Your task to perform on an android device: Look up the top rated 18v miter saw on Home Depot. Image 0: 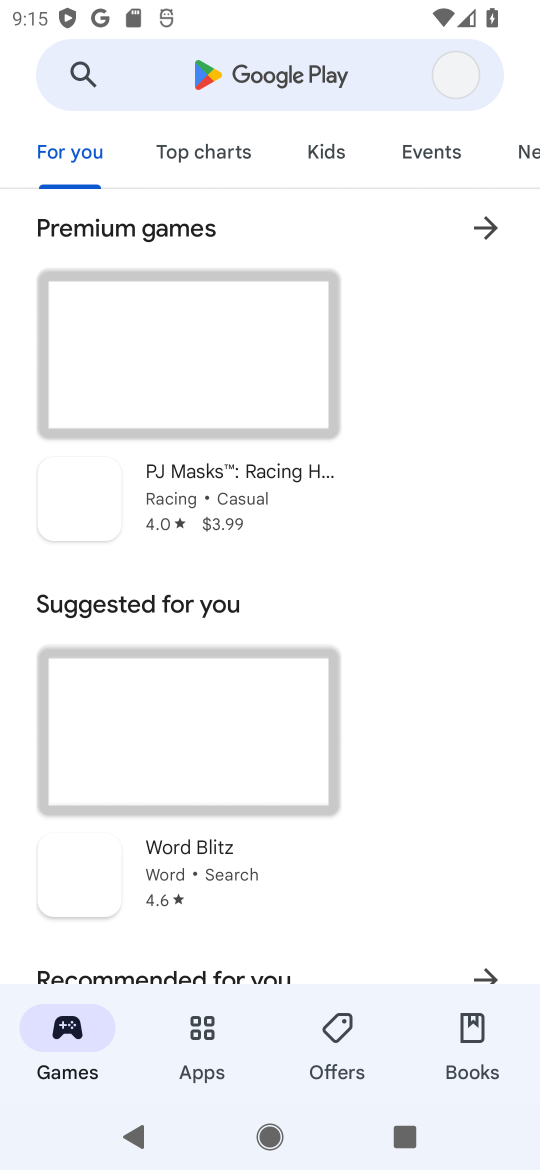
Step 0: press home button
Your task to perform on an android device: Look up the top rated 18v miter saw on Home Depot. Image 1: 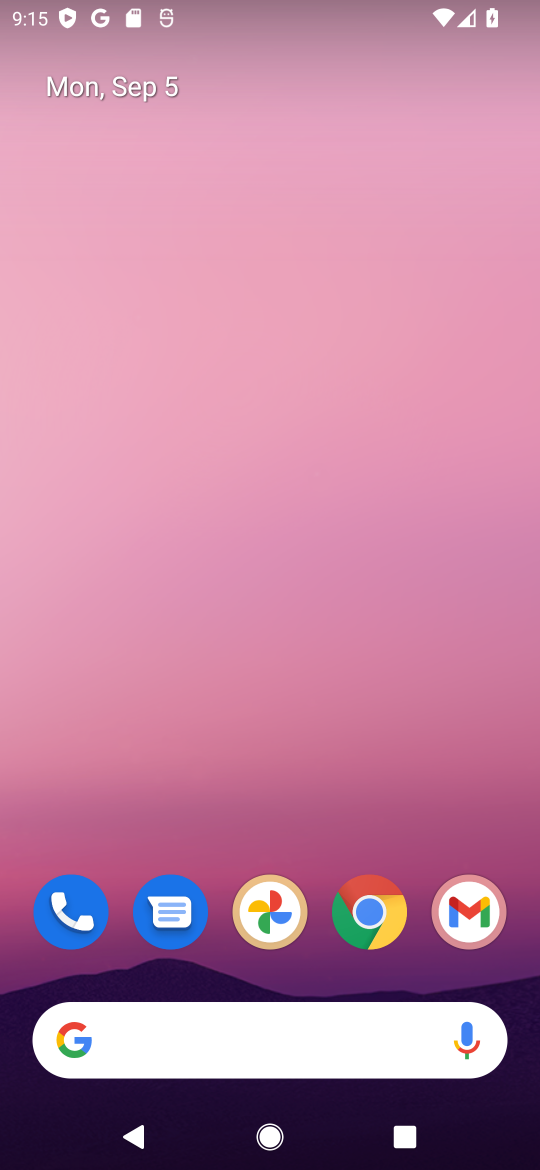
Step 1: click (388, 919)
Your task to perform on an android device: Look up the top rated 18v miter saw on Home Depot. Image 2: 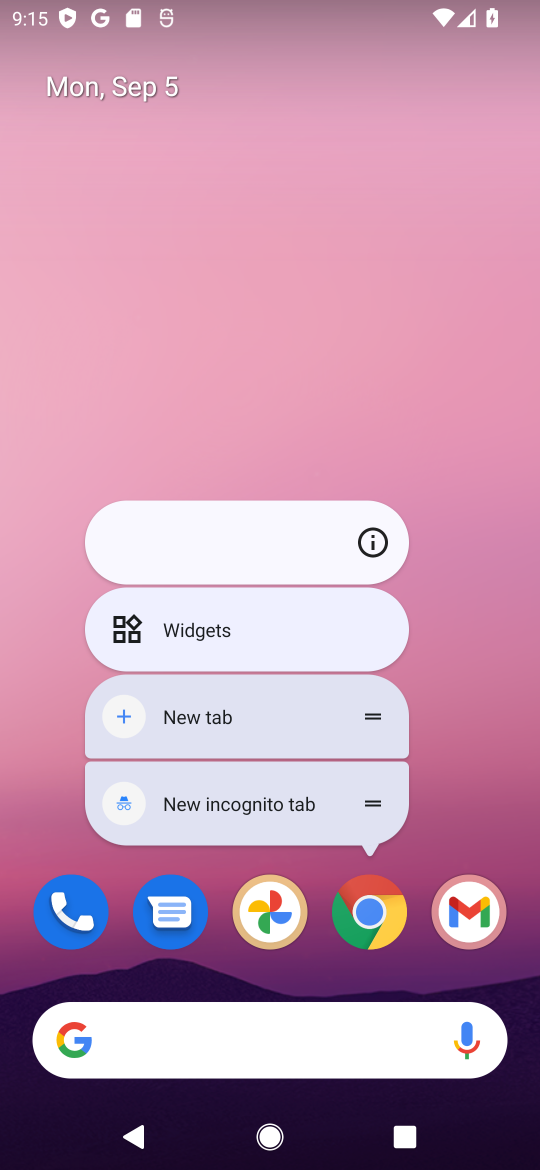
Step 2: click (369, 925)
Your task to perform on an android device: Look up the top rated 18v miter saw on Home Depot. Image 3: 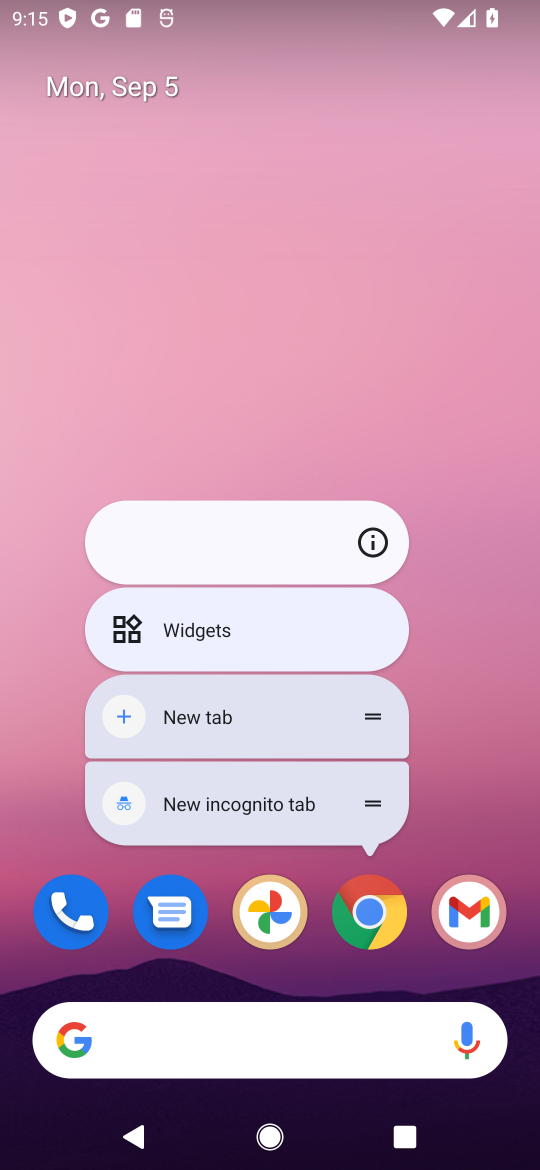
Step 3: click (369, 925)
Your task to perform on an android device: Look up the top rated 18v miter saw on Home Depot. Image 4: 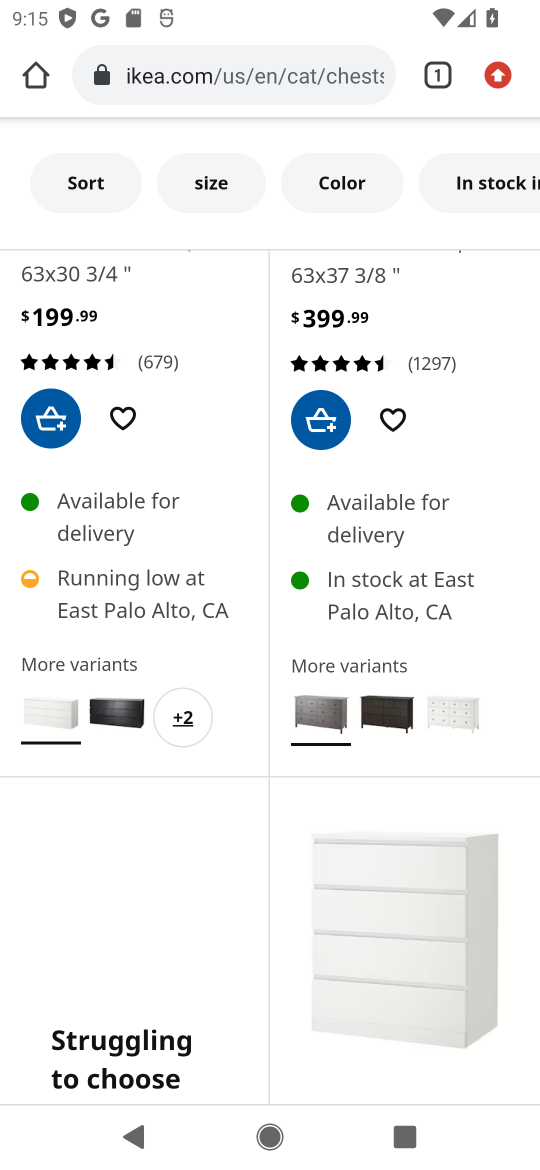
Step 4: click (234, 59)
Your task to perform on an android device: Look up the top rated 18v miter saw on Home Depot. Image 5: 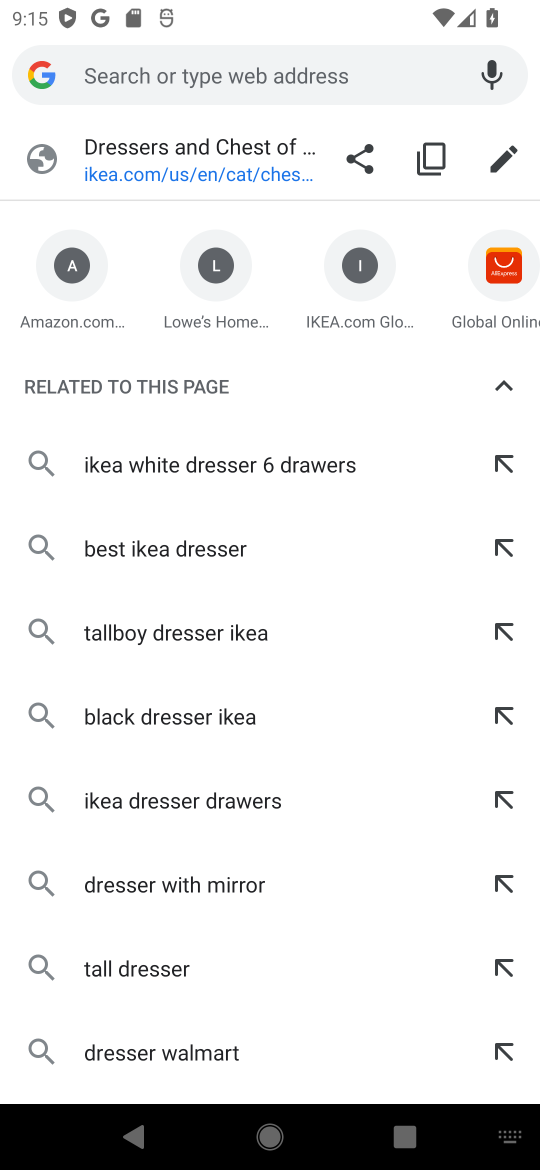
Step 5: type "home depot"
Your task to perform on an android device: Look up the top rated 18v miter saw on Home Depot. Image 6: 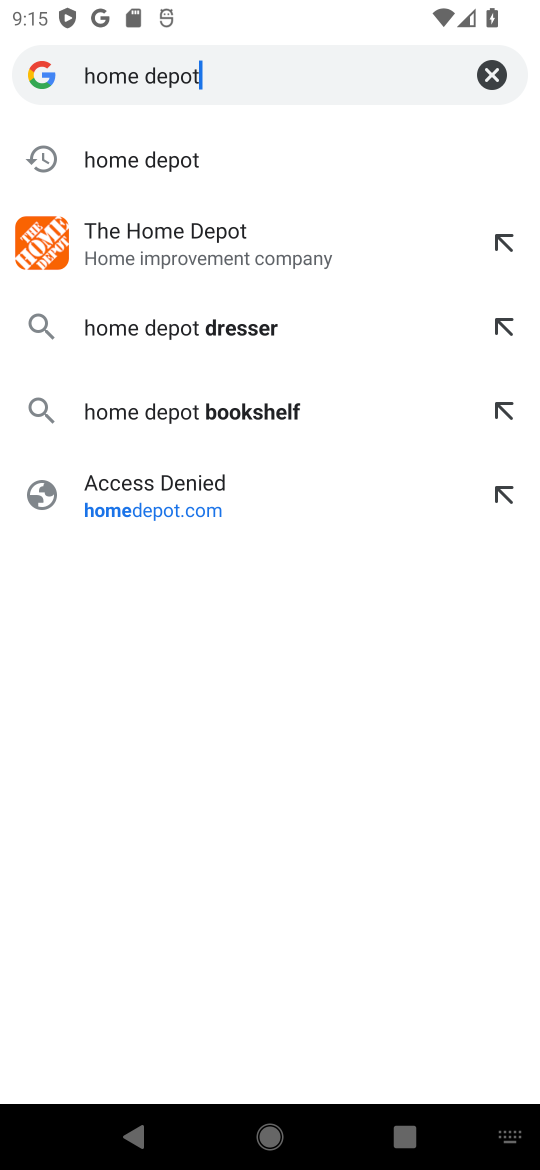
Step 6: click (223, 143)
Your task to perform on an android device: Look up the top rated 18v miter saw on Home Depot. Image 7: 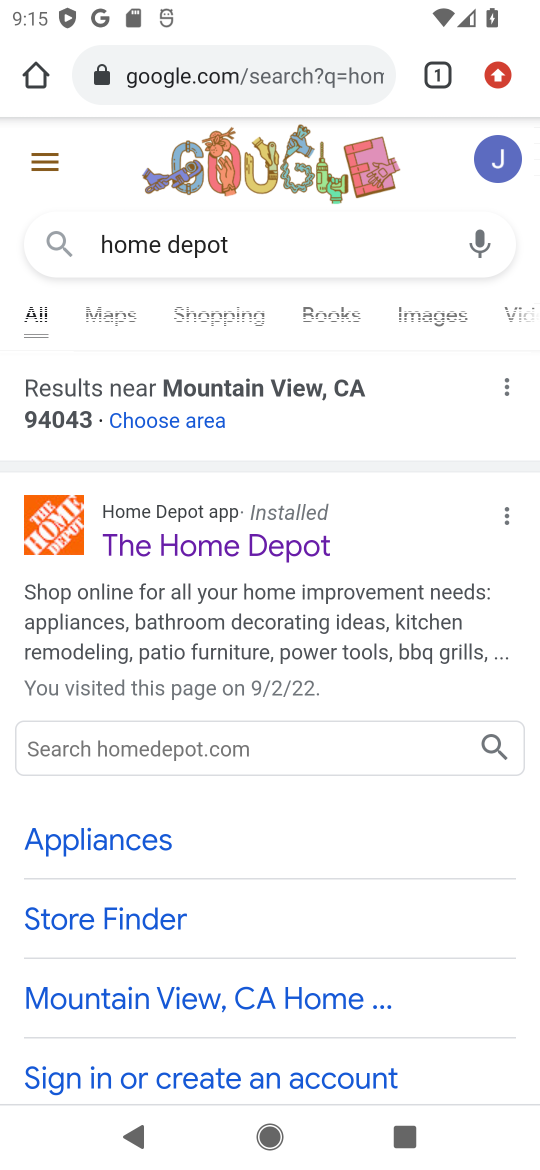
Step 7: click (303, 551)
Your task to perform on an android device: Look up the top rated 18v miter saw on Home Depot. Image 8: 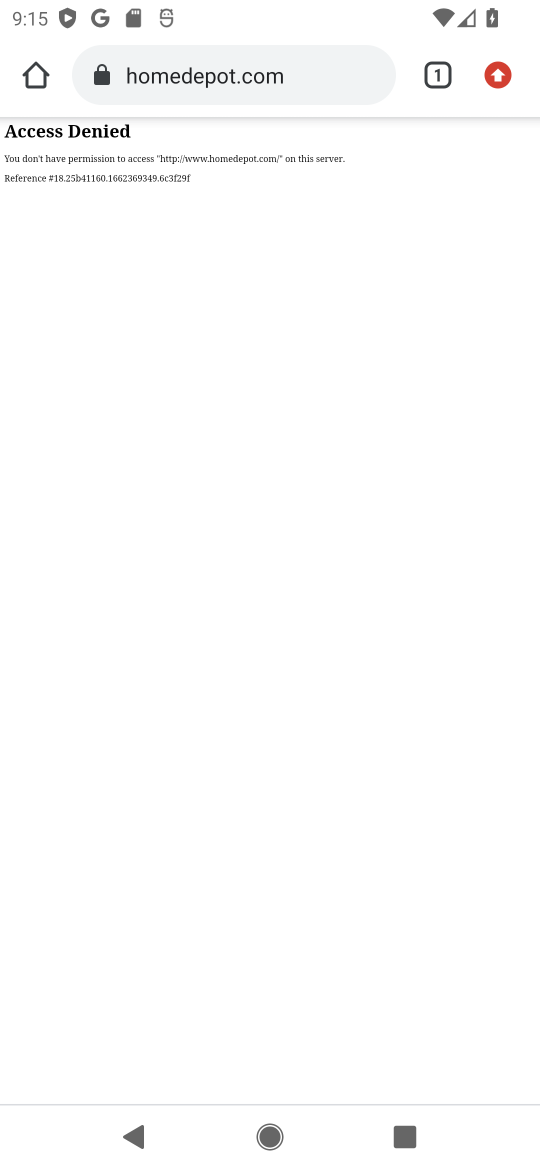
Step 8: press back button
Your task to perform on an android device: Look up the top rated 18v miter saw on Home Depot. Image 9: 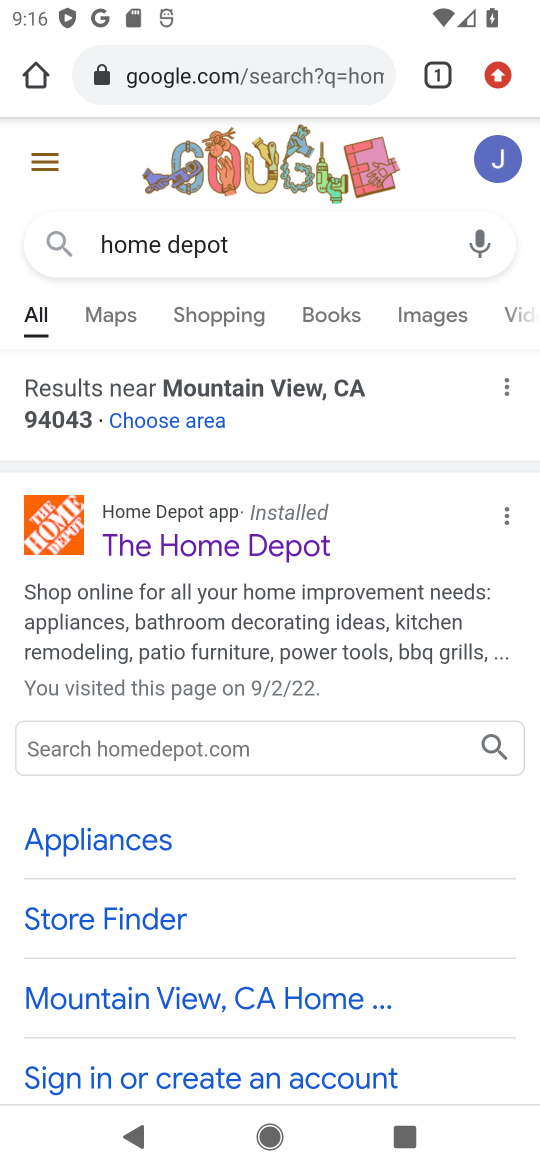
Step 9: click (293, 548)
Your task to perform on an android device: Look up the top rated 18v miter saw on Home Depot. Image 10: 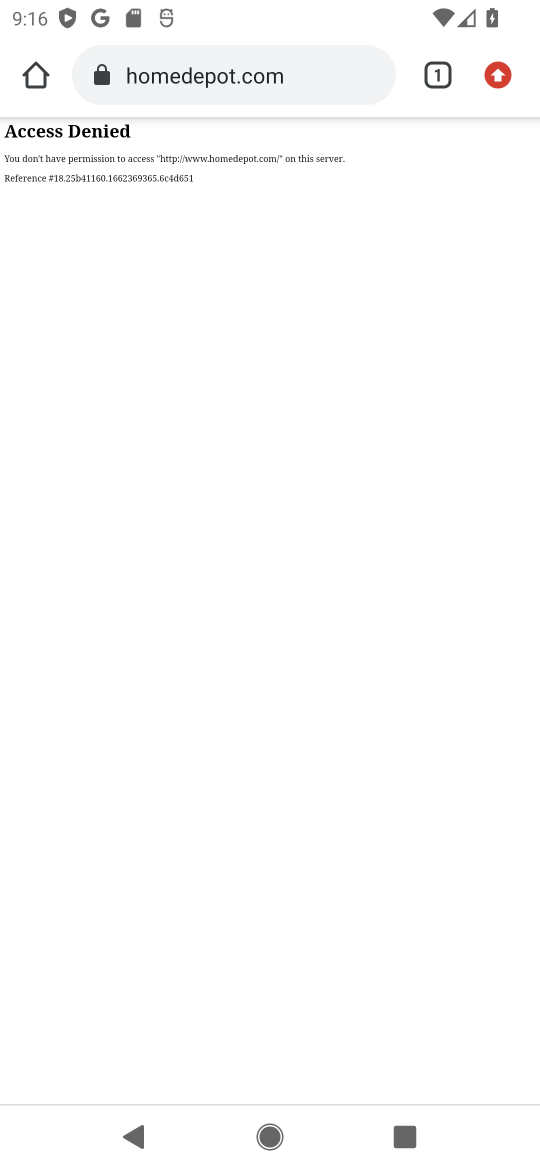
Step 10: task complete